Your task to perform on an android device: toggle airplane mode Image 0: 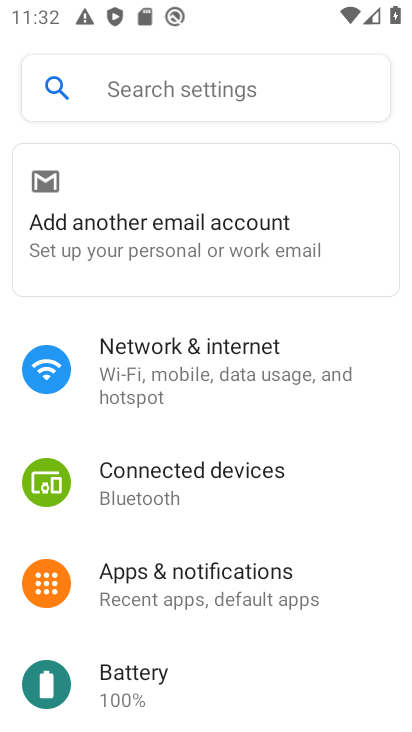
Step 0: press home button
Your task to perform on an android device: toggle airplane mode Image 1: 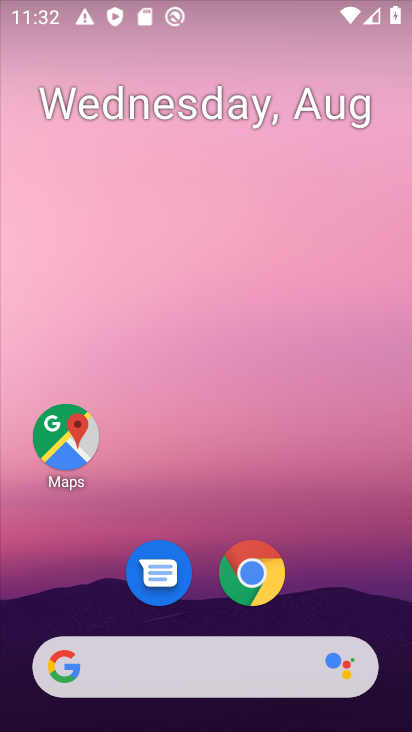
Step 1: drag from (325, 419) to (325, 50)
Your task to perform on an android device: toggle airplane mode Image 2: 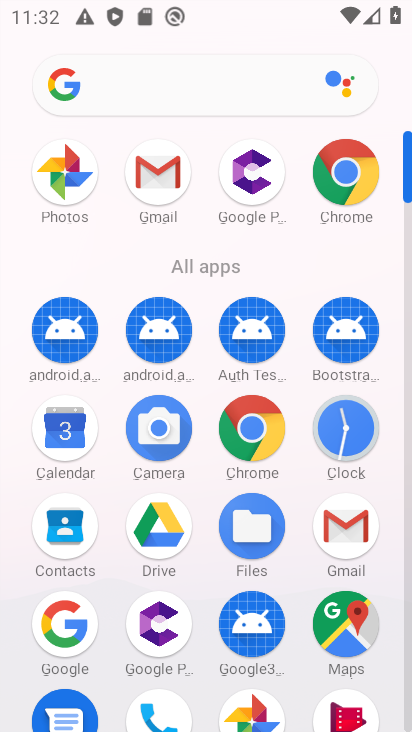
Step 2: drag from (310, 560) to (301, 102)
Your task to perform on an android device: toggle airplane mode Image 3: 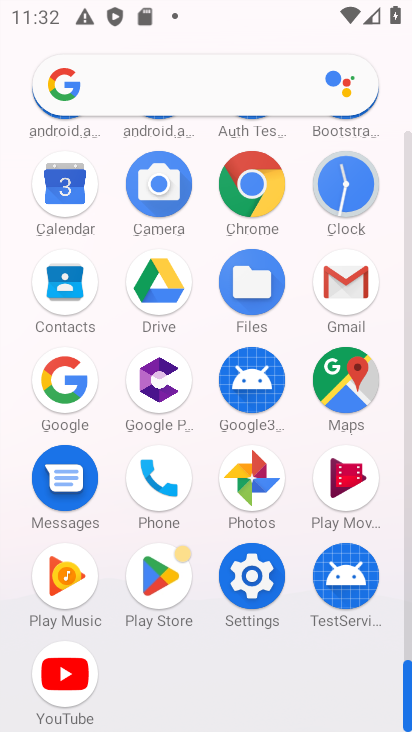
Step 3: click (246, 576)
Your task to perform on an android device: toggle airplane mode Image 4: 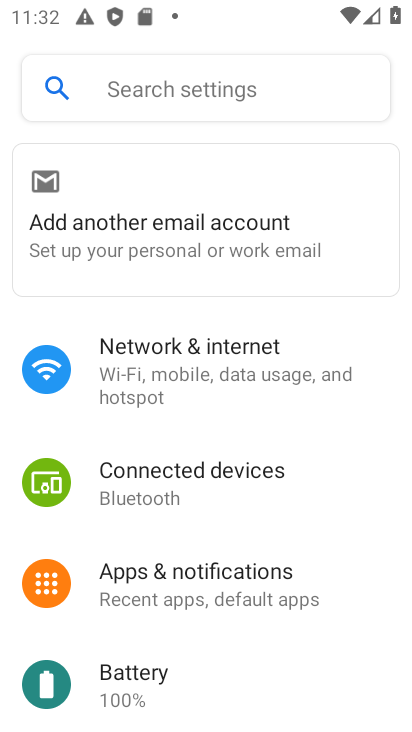
Step 4: click (230, 351)
Your task to perform on an android device: toggle airplane mode Image 5: 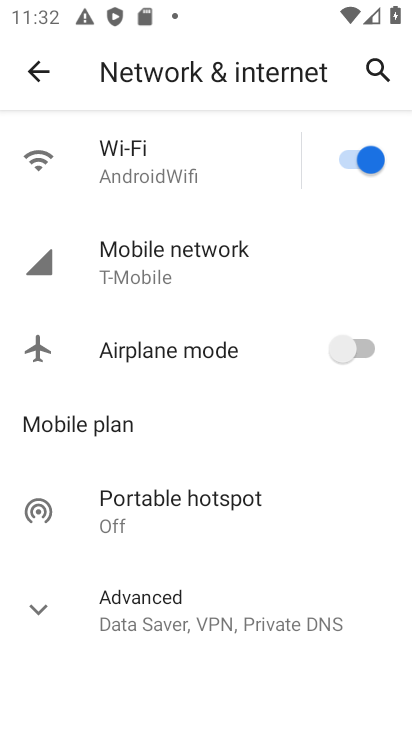
Step 5: click (300, 358)
Your task to perform on an android device: toggle airplane mode Image 6: 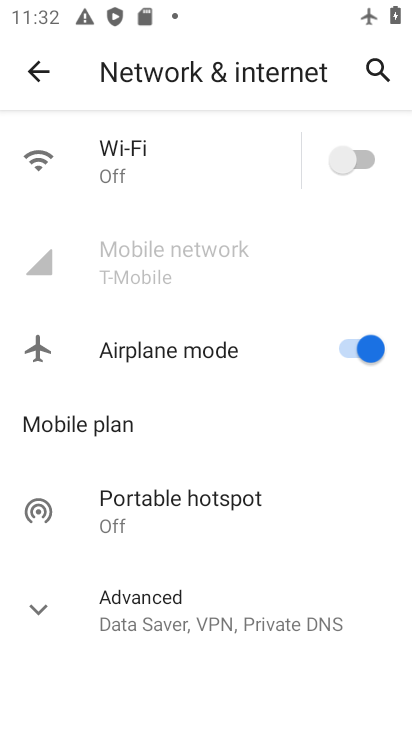
Step 6: task complete